Your task to perform on an android device: Open Chrome and go to the settings page Image 0: 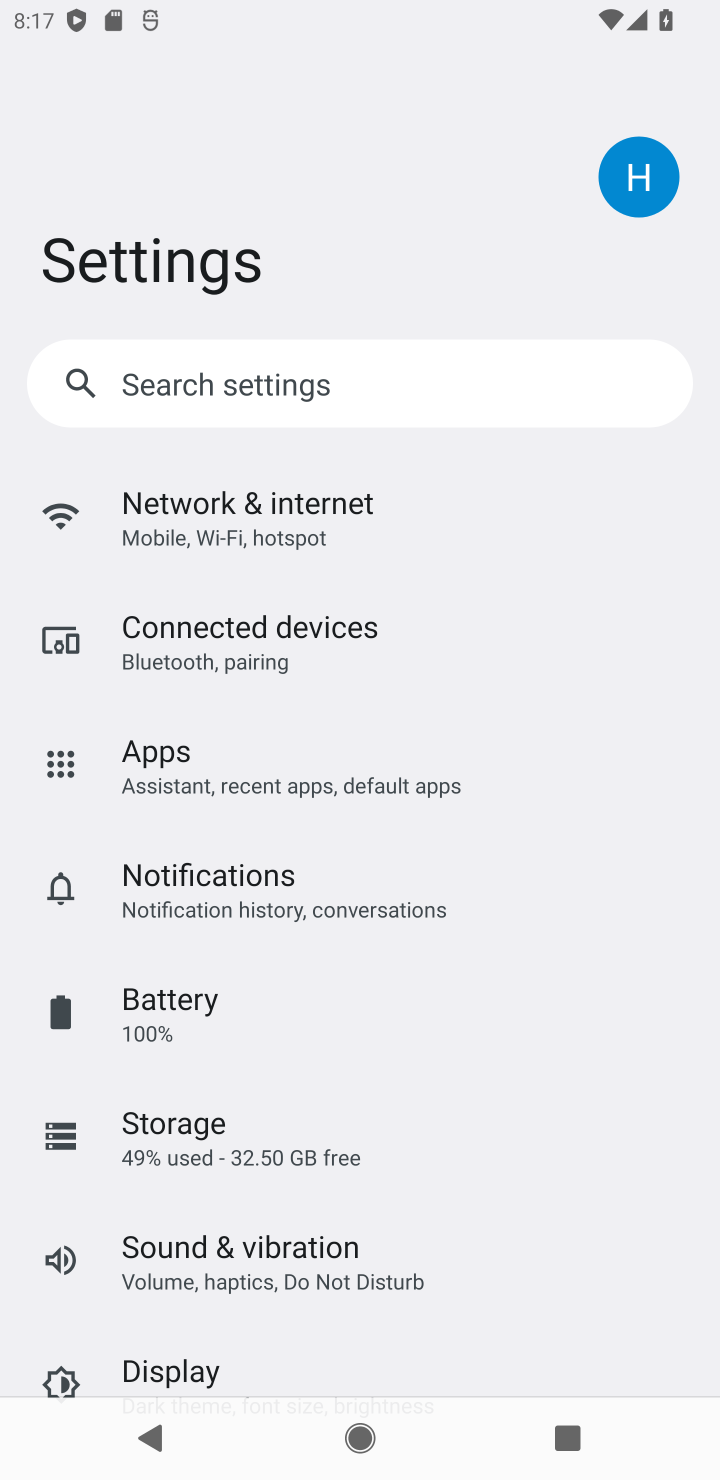
Step 0: press home button
Your task to perform on an android device: Open Chrome and go to the settings page Image 1: 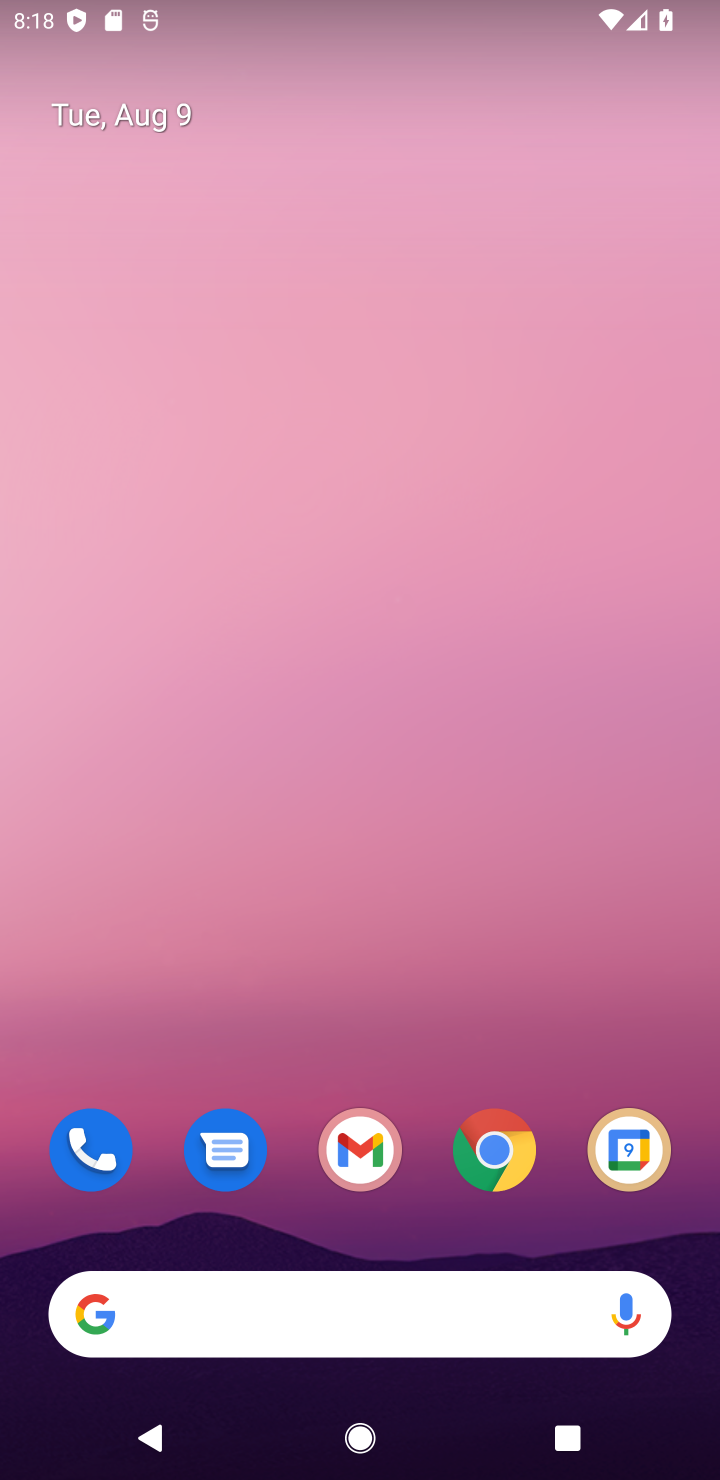
Step 1: click (492, 1150)
Your task to perform on an android device: Open Chrome and go to the settings page Image 2: 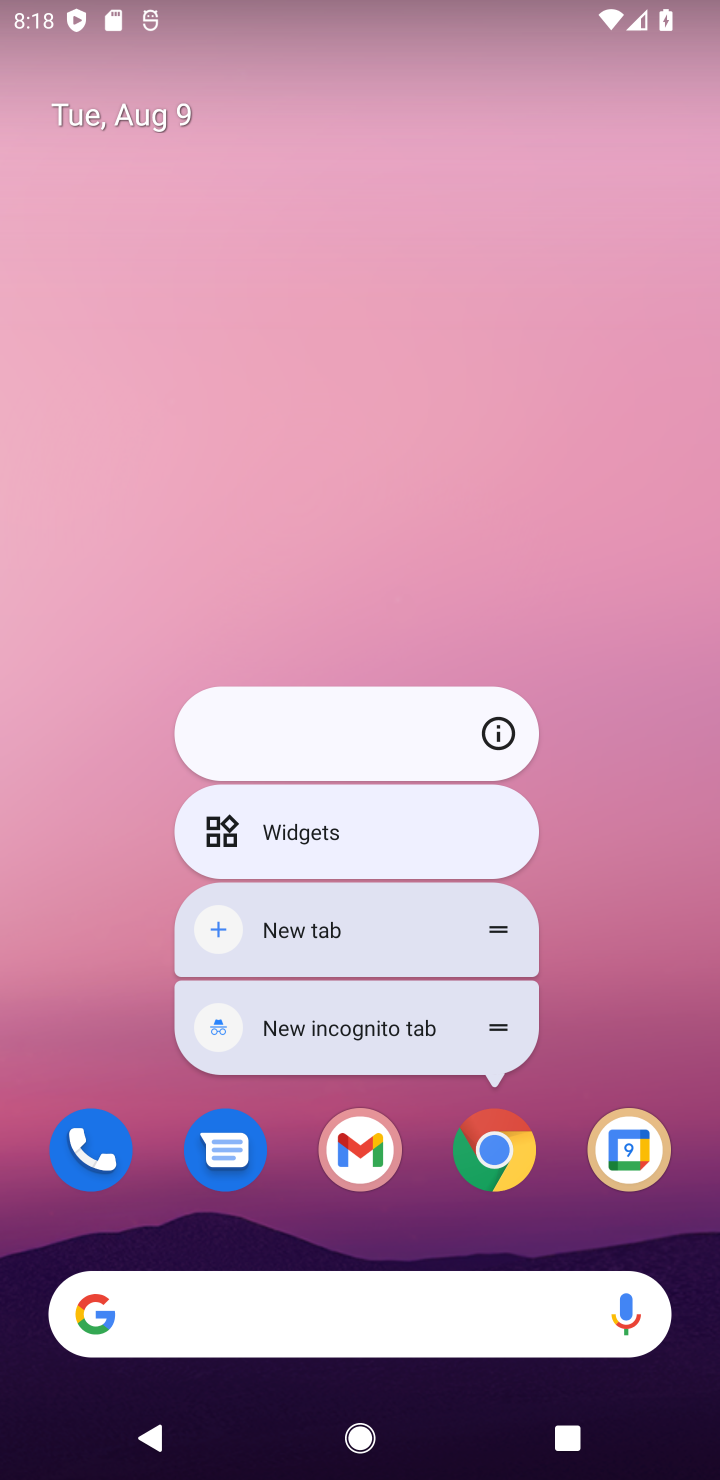
Step 2: click (492, 1155)
Your task to perform on an android device: Open Chrome and go to the settings page Image 3: 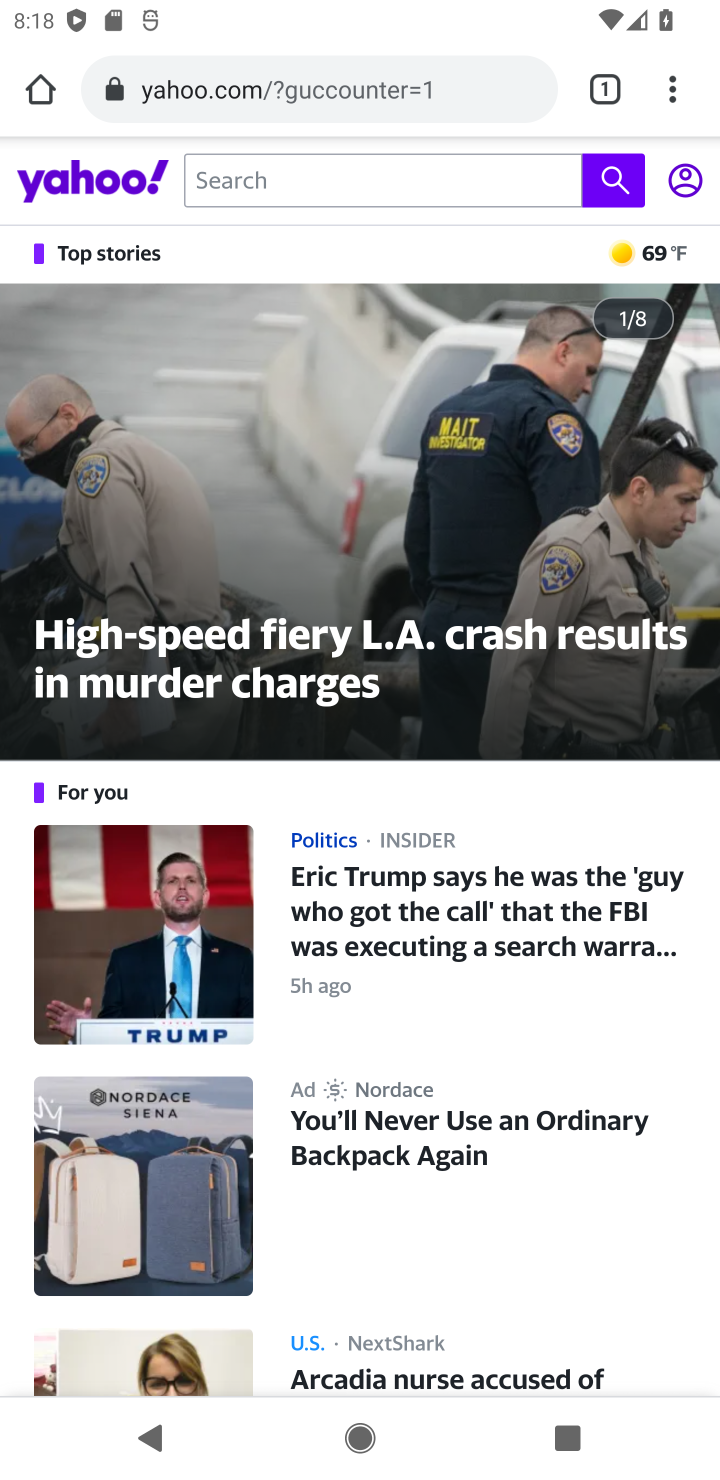
Step 3: task complete